Your task to perform on an android device: add a contact Image 0: 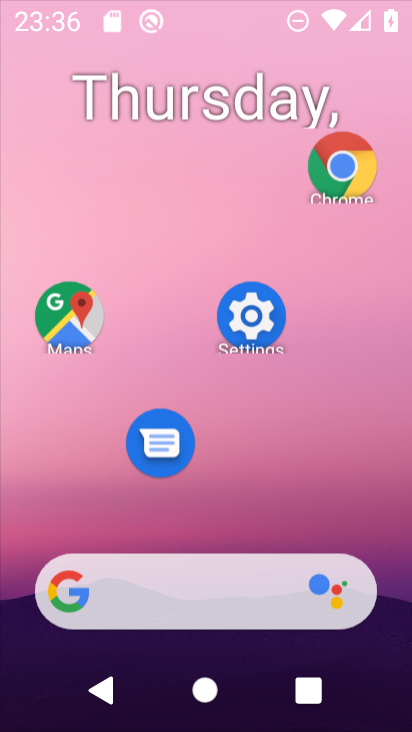
Step 0: drag from (397, 312) to (393, 9)
Your task to perform on an android device: add a contact Image 1: 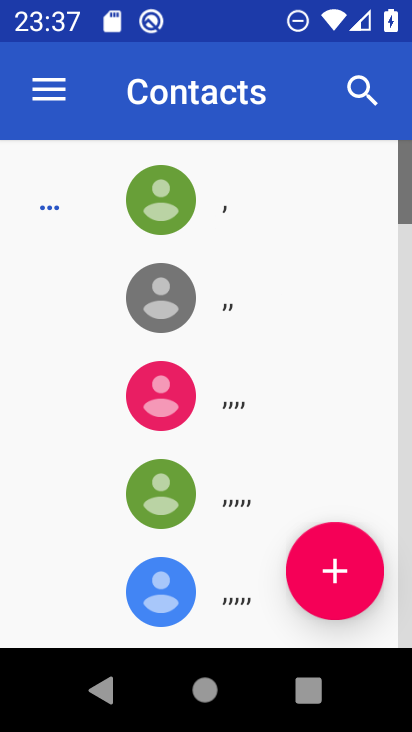
Step 1: drag from (226, 575) to (225, 158)
Your task to perform on an android device: add a contact Image 2: 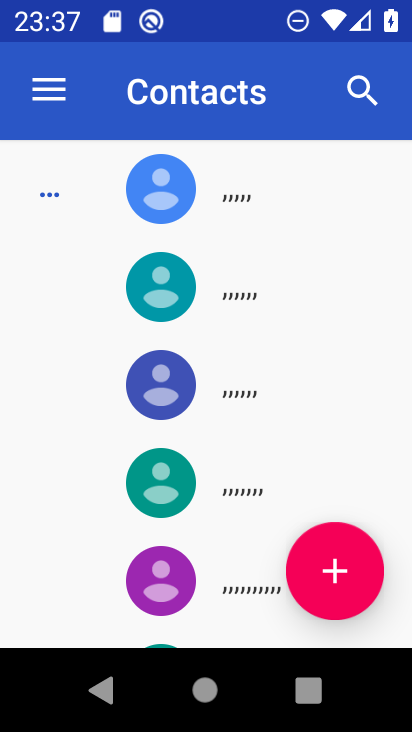
Step 2: click (328, 567)
Your task to perform on an android device: add a contact Image 3: 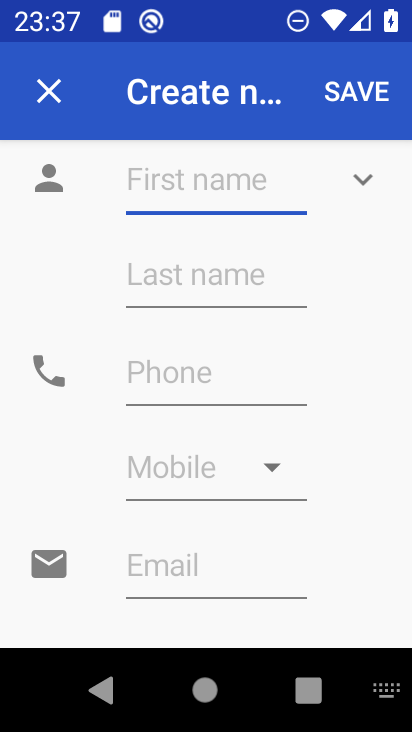
Step 3: type ""
Your task to perform on an android device: add a contact Image 4: 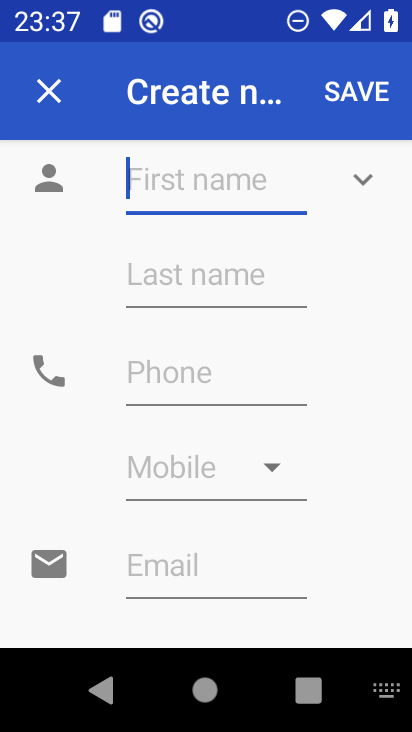
Step 4: type "ssxka"
Your task to perform on an android device: add a contact Image 5: 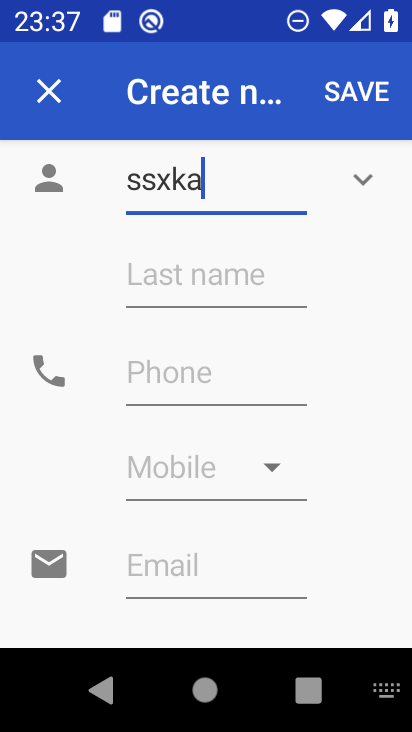
Step 5: click (338, 102)
Your task to perform on an android device: add a contact Image 6: 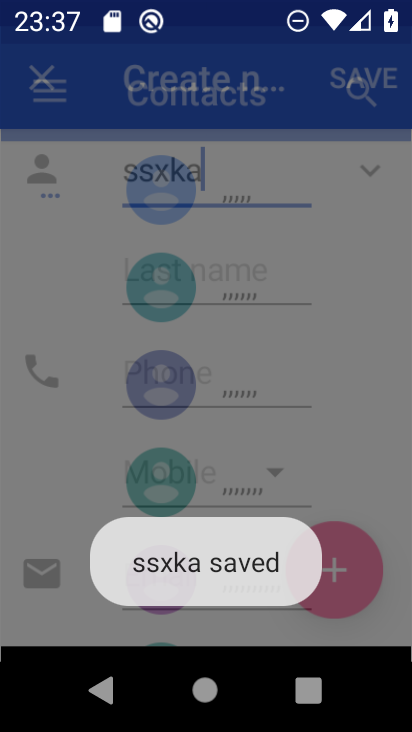
Step 6: task complete